Your task to perform on an android device: Open Yahoo.com Image 0: 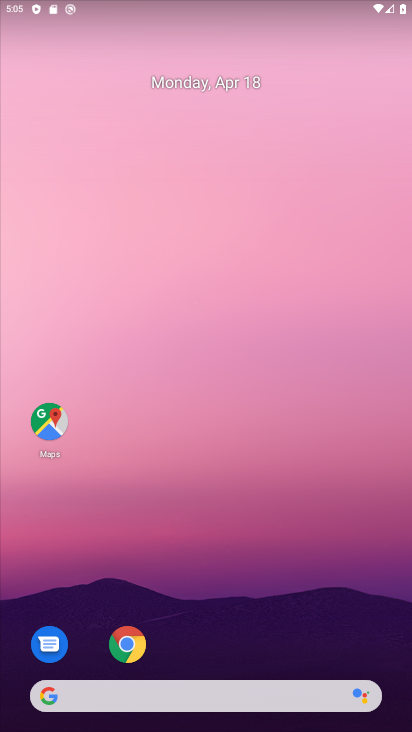
Step 0: click (125, 639)
Your task to perform on an android device: Open Yahoo.com Image 1: 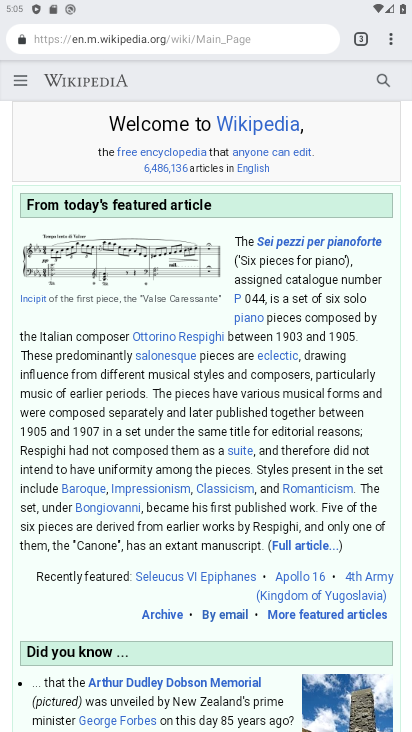
Step 1: click (357, 37)
Your task to perform on an android device: Open Yahoo.com Image 2: 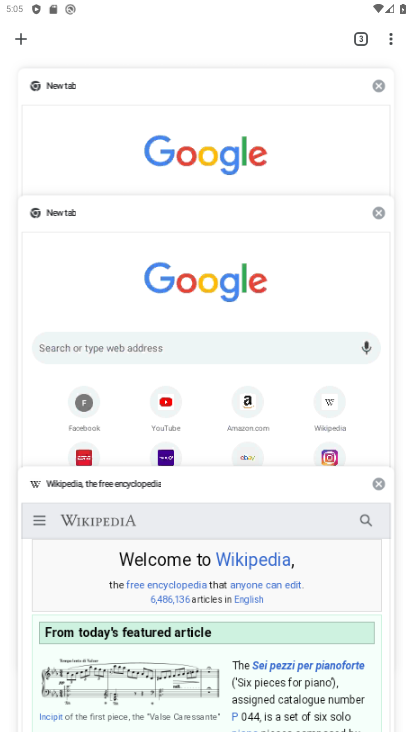
Step 2: click (377, 83)
Your task to perform on an android device: Open Yahoo.com Image 3: 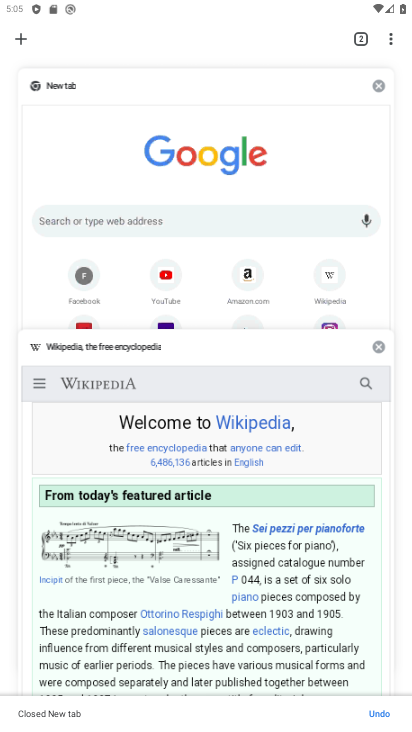
Step 3: click (377, 83)
Your task to perform on an android device: Open Yahoo.com Image 4: 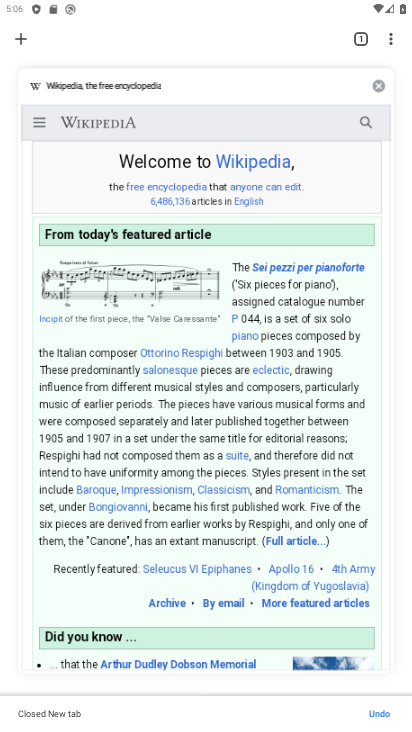
Step 4: click (377, 83)
Your task to perform on an android device: Open Yahoo.com Image 5: 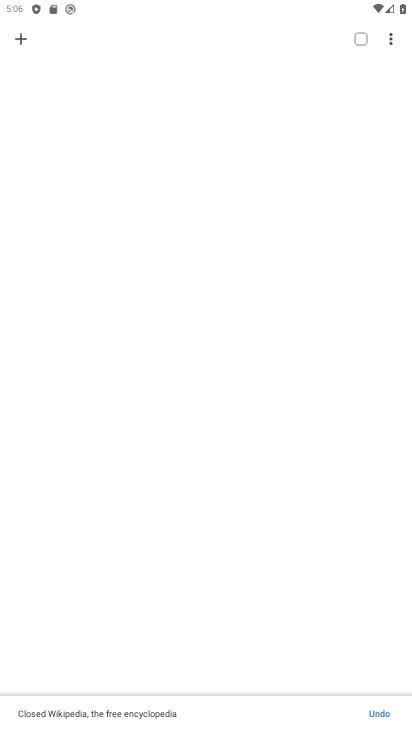
Step 5: click (22, 38)
Your task to perform on an android device: Open Yahoo.com Image 6: 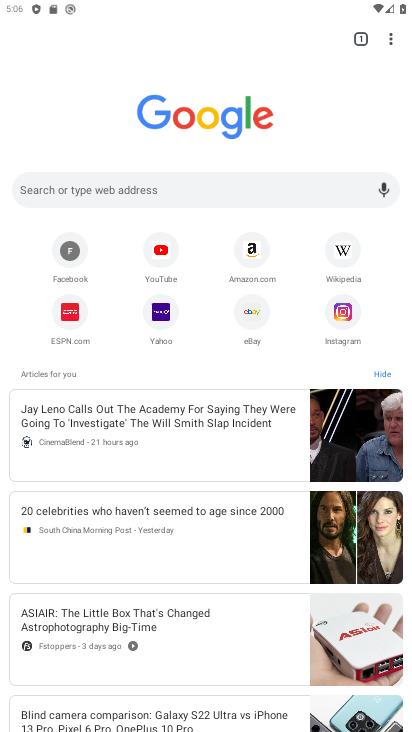
Step 6: click (162, 308)
Your task to perform on an android device: Open Yahoo.com Image 7: 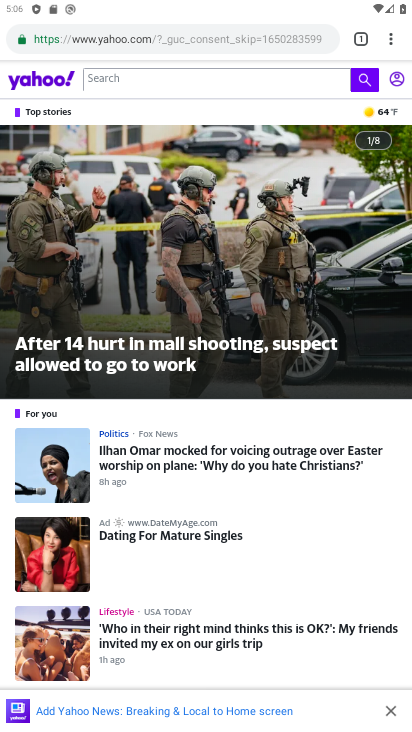
Step 7: task complete